Your task to perform on an android device: turn off smart reply in the gmail app Image 0: 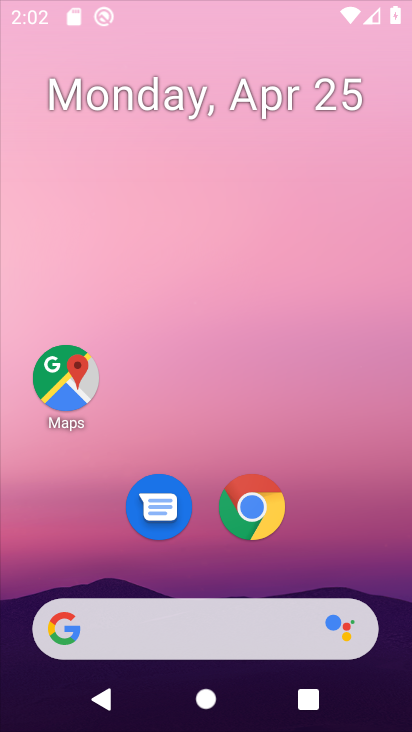
Step 0: press home button
Your task to perform on an android device: turn off smart reply in the gmail app Image 1: 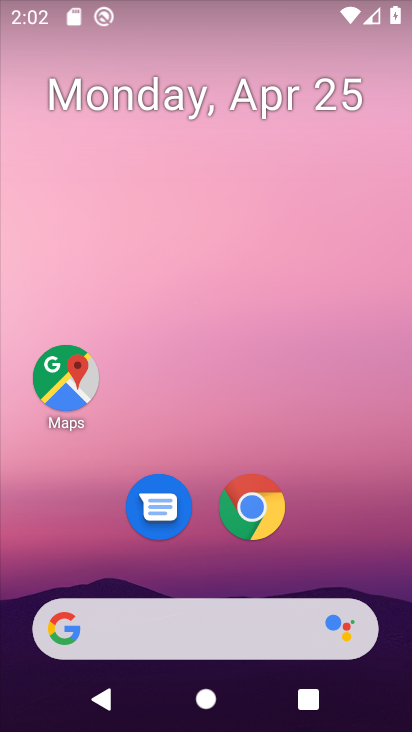
Step 1: drag from (184, 450) to (247, 13)
Your task to perform on an android device: turn off smart reply in the gmail app Image 2: 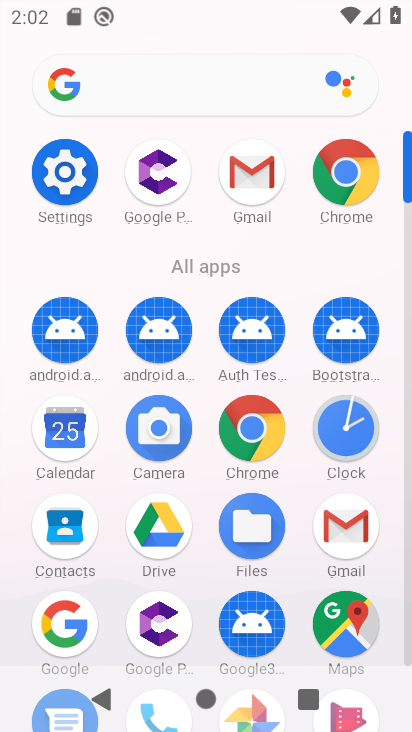
Step 2: click (246, 191)
Your task to perform on an android device: turn off smart reply in the gmail app Image 3: 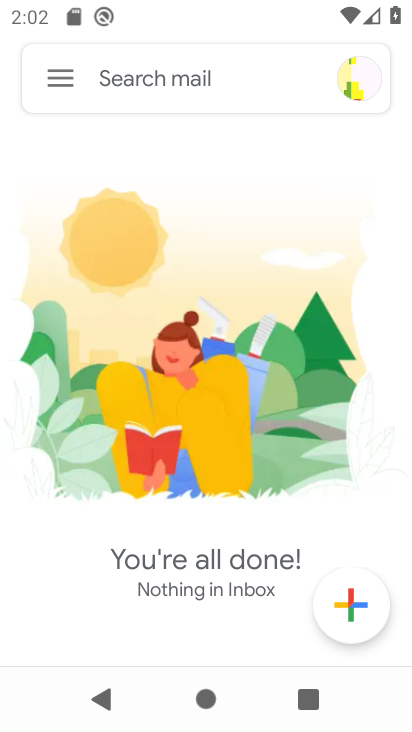
Step 3: click (60, 80)
Your task to perform on an android device: turn off smart reply in the gmail app Image 4: 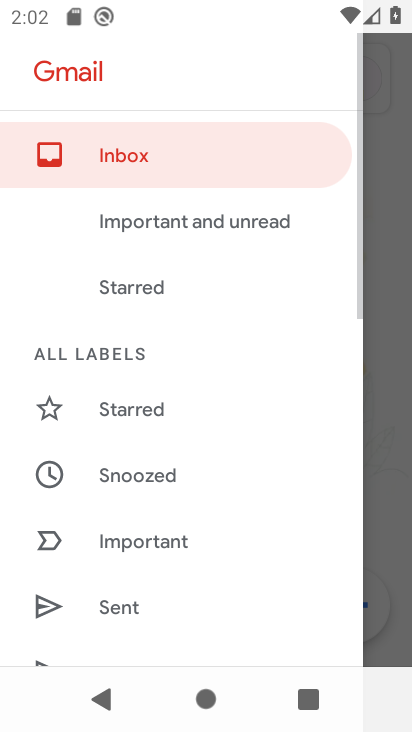
Step 4: drag from (175, 618) to (350, 173)
Your task to perform on an android device: turn off smart reply in the gmail app Image 5: 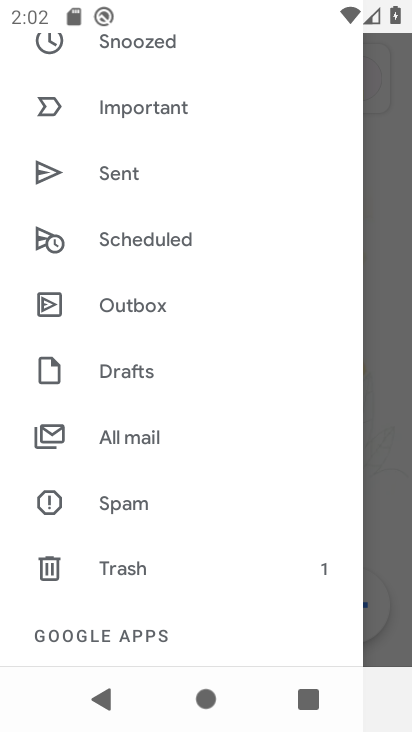
Step 5: drag from (144, 615) to (329, 202)
Your task to perform on an android device: turn off smart reply in the gmail app Image 6: 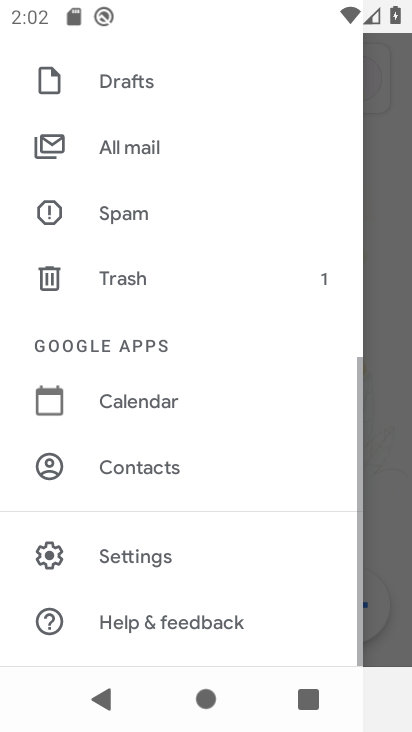
Step 6: click (120, 554)
Your task to perform on an android device: turn off smart reply in the gmail app Image 7: 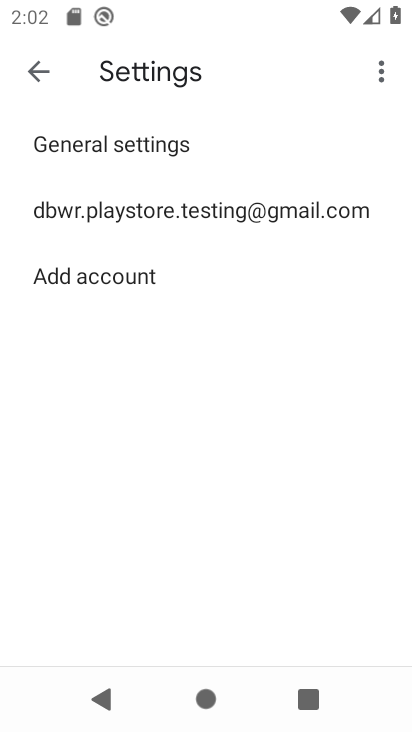
Step 7: click (234, 209)
Your task to perform on an android device: turn off smart reply in the gmail app Image 8: 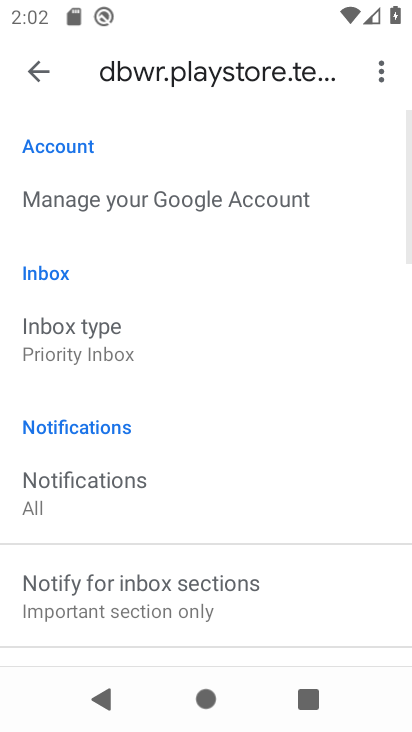
Step 8: drag from (190, 616) to (342, 222)
Your task to perform on an android device: turn off smart reply in the gmail app Image 9: 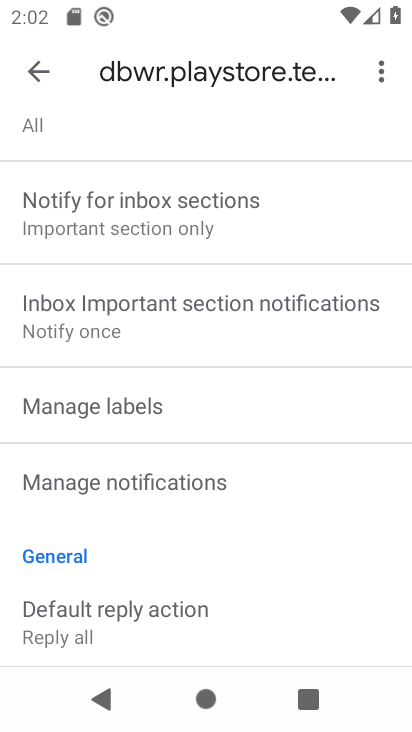
Step 9: drag from (213, 579) to (349, 217)
Your task to perform on an android device: turn off smart reply in the gmail app Image 10: 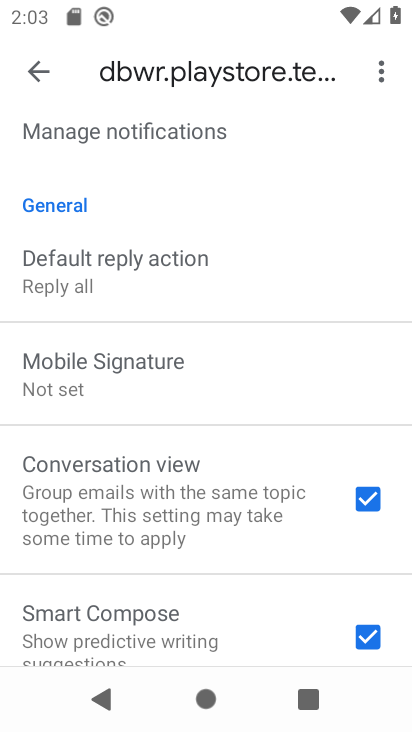
Step 10: drag from (223, 594) to (335, 223)
Your task to perform on an android device: turn off smart reply in the gmail app Image 11: 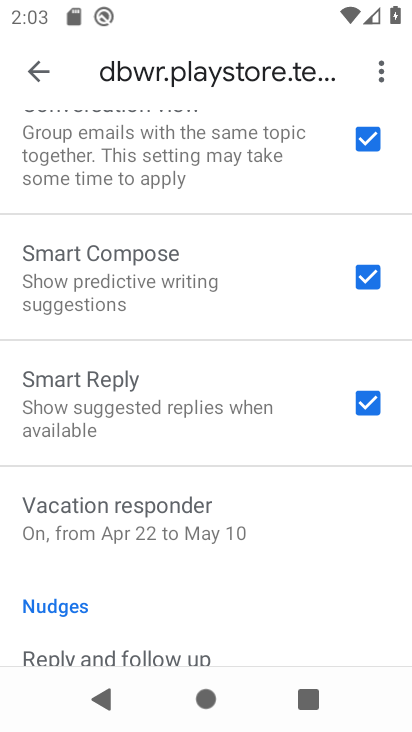
Step 11: click (361, 396)
Your task to perform on an android device: turn off smart reply in the gmail app Image 12: 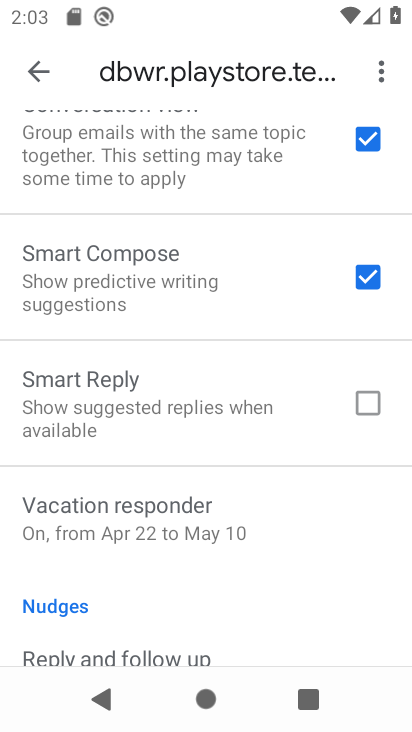
Step 12: task complete